Your task to perform on an android device: choose inbox layout in the gmail app Image 0: 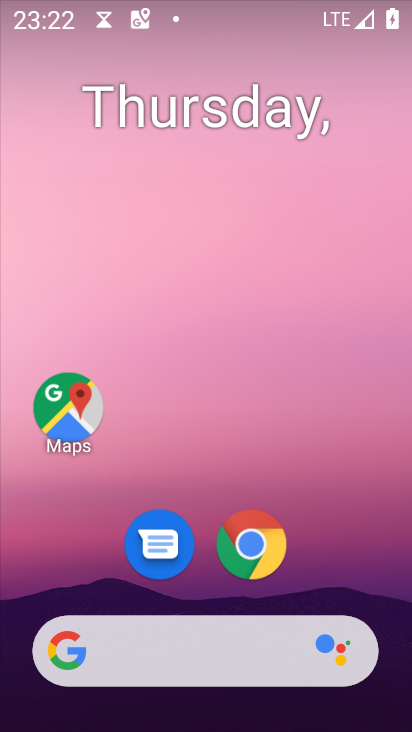
Step 0: drag from (313, 426) to (228, 146)
Your task to perform on an android device: choose inbox layout in the gmail app Image 1: 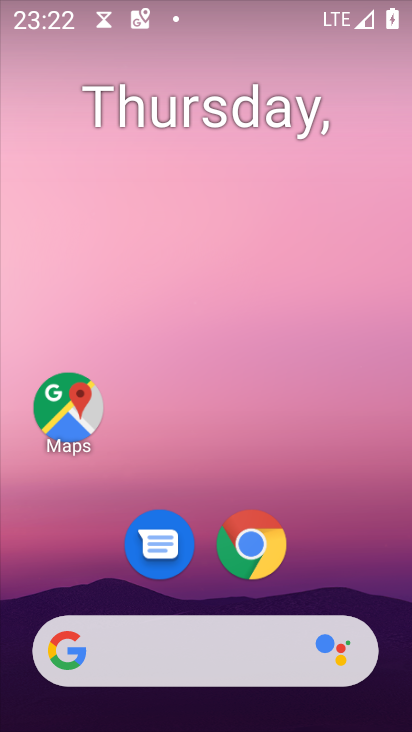
Step 1: drag from (285, 490) to (132, 39)
Your task to perform on an android device: choose inbox layout in the gmail app Image 2: 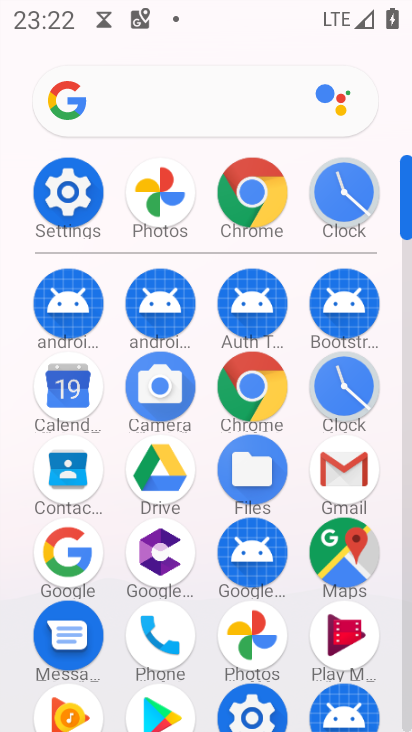
Step 2: click (328, 454)
Your task to perform on an android device: choose inbox layout in the gmail app Image 3: 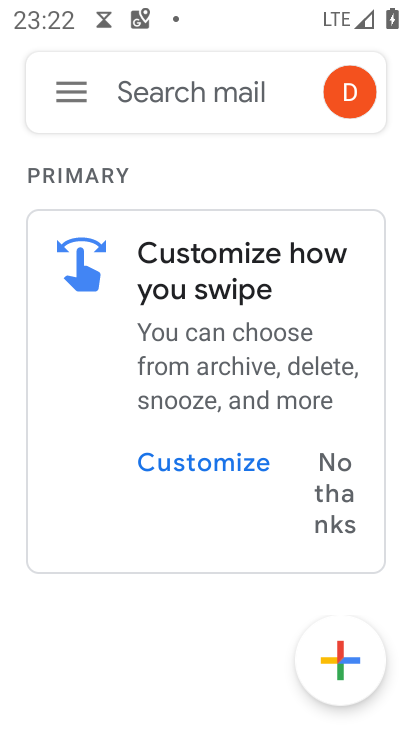
Step 3: click (73, 98)
Your task to perform on an android device: choose inbox layout in the gmail app Image 4: 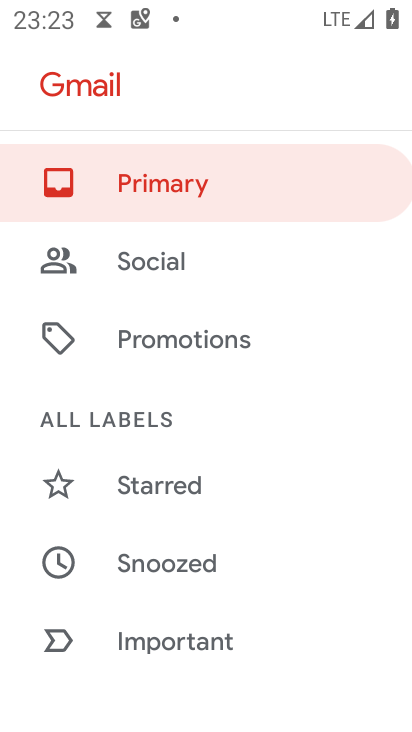
Step 4: drag from (216, 656) to (202, 236)
Your task to perform on an android device: choose inbox layout in the gmail app Image 5: 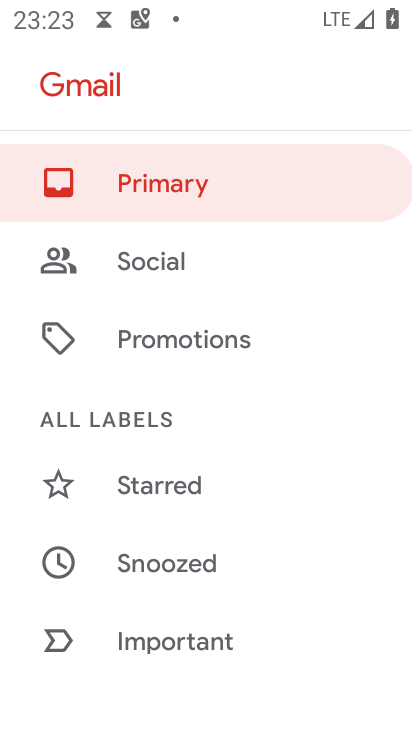
Step 5: drag from (242, 602) to (233, 55)
Your task to perform on an android device: choose inbox layout in the gmail app Image 6: 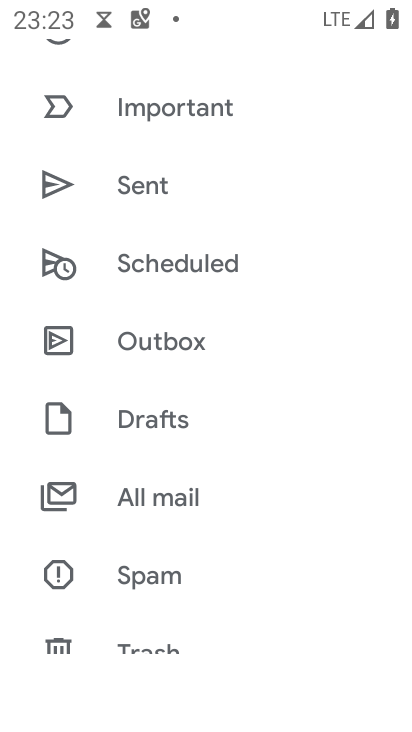
Step 6: drag from (181, 601) to (204, 310)
Your task to perform on an android device: choose inbox layout in the gmail app Image 7: 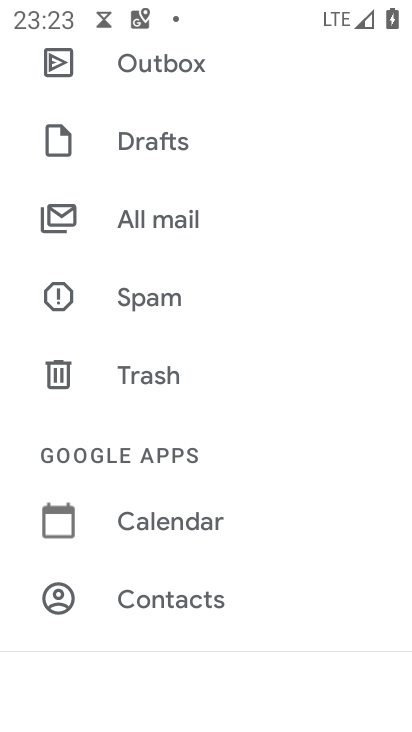
Step 7: drag from (206, 601) to (209, 276)
Your task to perform on an android device: choose inbox layout in the gmail app Image 8: 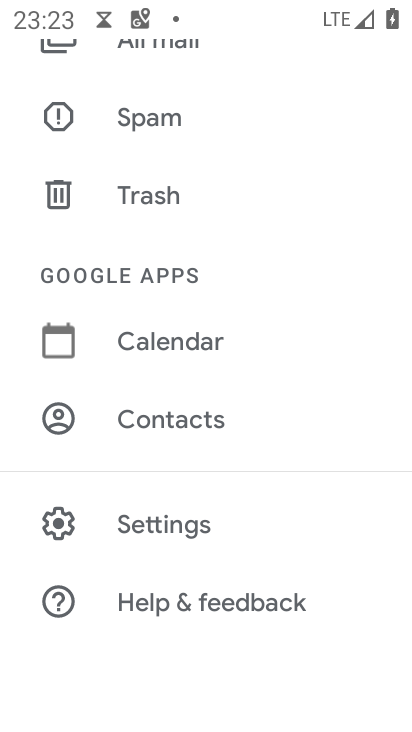
Step 8: click (162, 515)
Your task to perform on an android device: choose inbox layout in the gmail app Image 9: 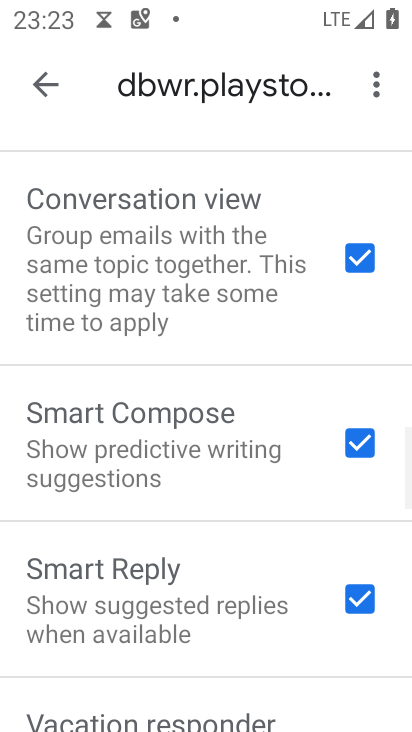
Step 9: drag from (183, 234) to (157, 640)
Your task to perform on an android device: choose inbox layout in the gmail app Image 10: 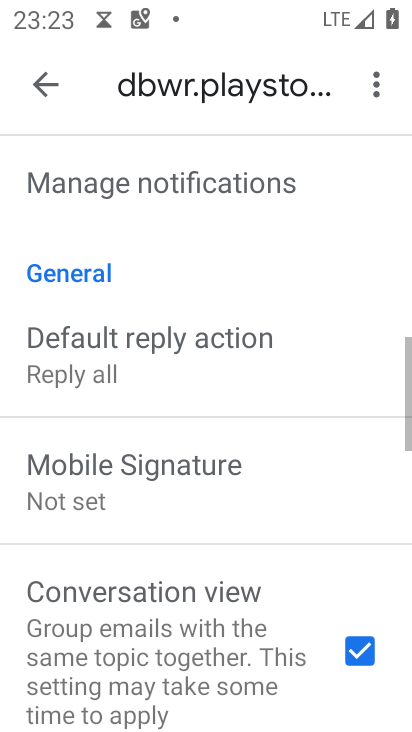
Step 10: drag from (220, 210) to (196, 615)
Your task to perform on an android device: choose inbox layout in the gmail app Image 11: 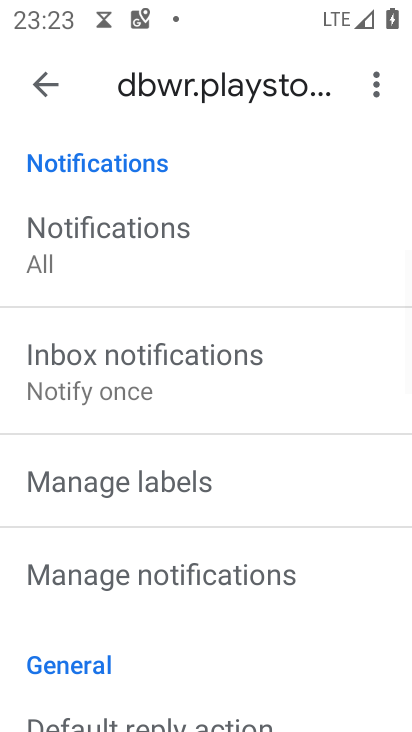
Step 11: drag from (210, 233) to (171, 611)
Your task to perform on an android device: choose inbox layout in the gmail app Image 12: 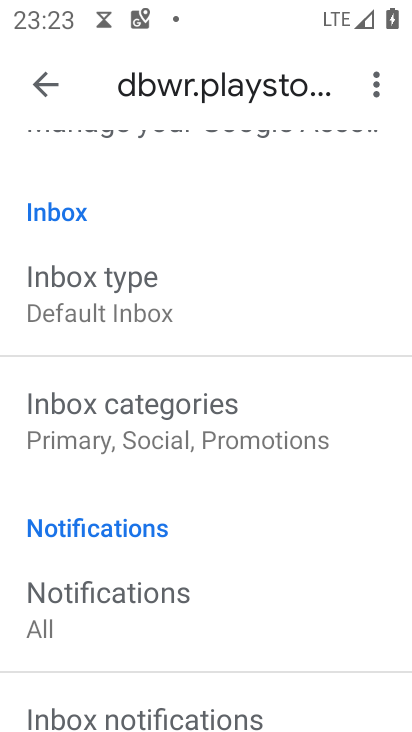
Step 12: click (138, 309)
Your task to perform on an android device: choose inbox layout in the gmail app Image 13: 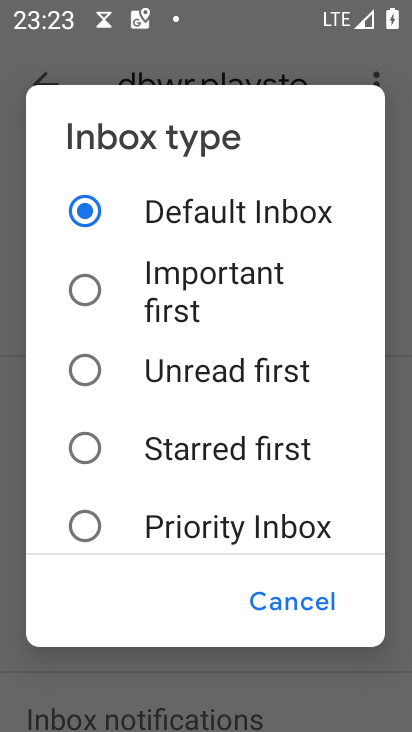
Step 13: click (88, 523)
Your task to perform on an android device: choose inbox layout in the gmail app Image 14: 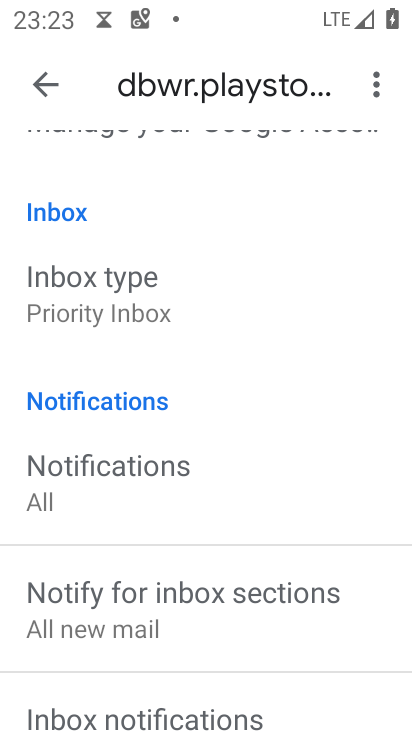
Step 14: press back button
Your task to perform on an android device: choose inbox layout in the gmail app Image 15: 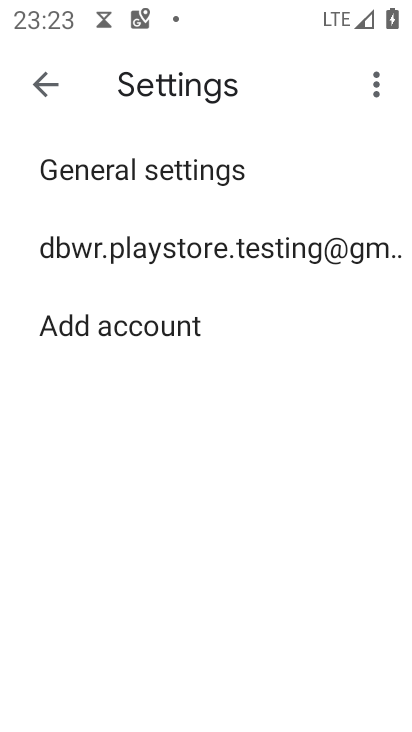
Step 15: press back button
Your task to perform on an android device: choose inbox layout in the gmail app Image 16: 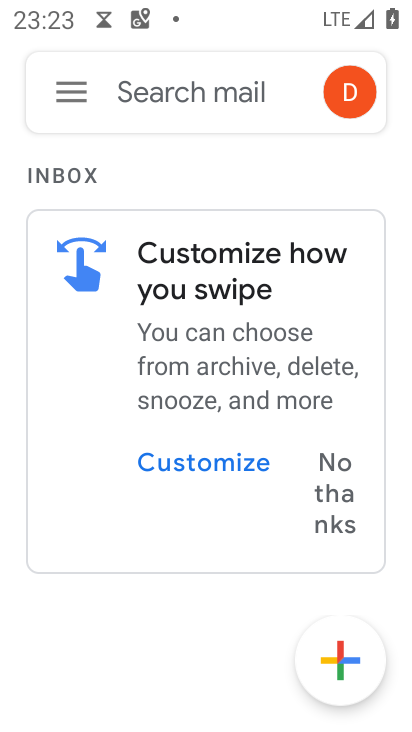
Step 16: click (66, 83)
Your task to perform on an android device: choose inbox layout in the gmail app Image 17: 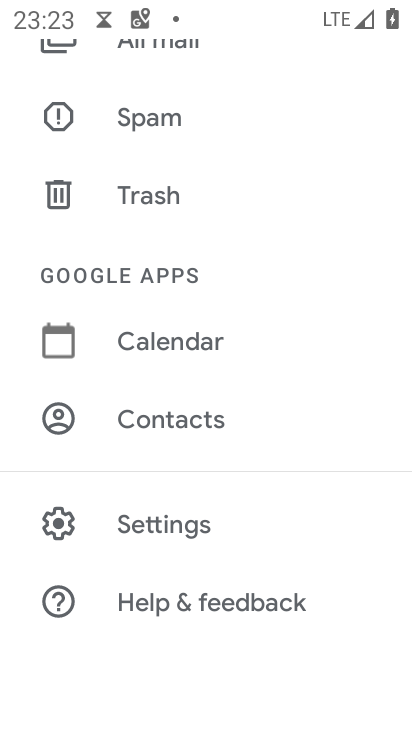
Step 17: task complete